Your task to perform on an android device: Go to internet settings Image 0: 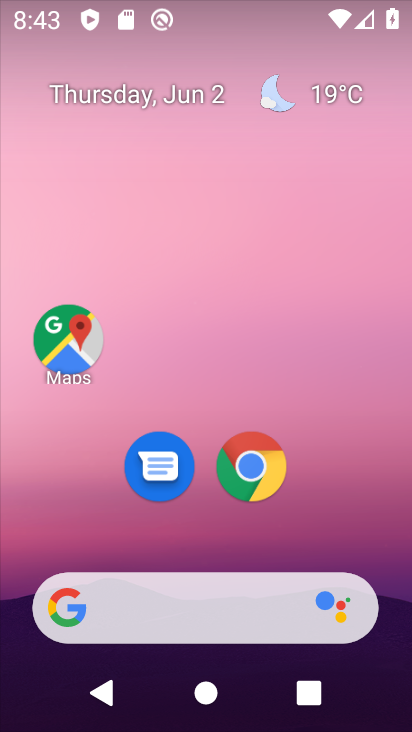
Step 0: press home button
Your task to perform on an android device: Go to internet settings Image 1: 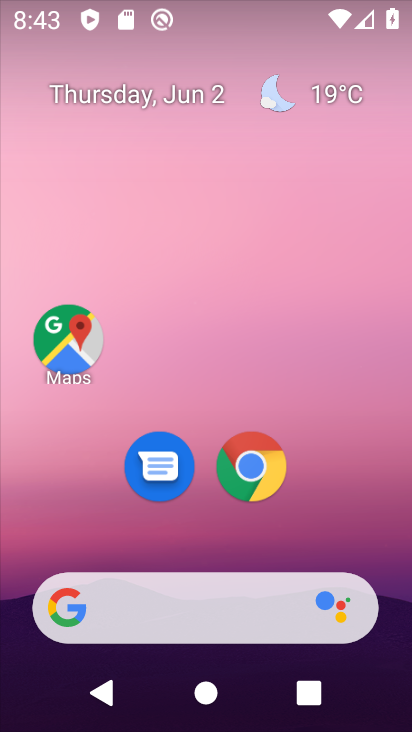
Step 1: drag from (263, 531) to (257, 106)
Your task to perform on an android device: Go to internet settings Image 2: 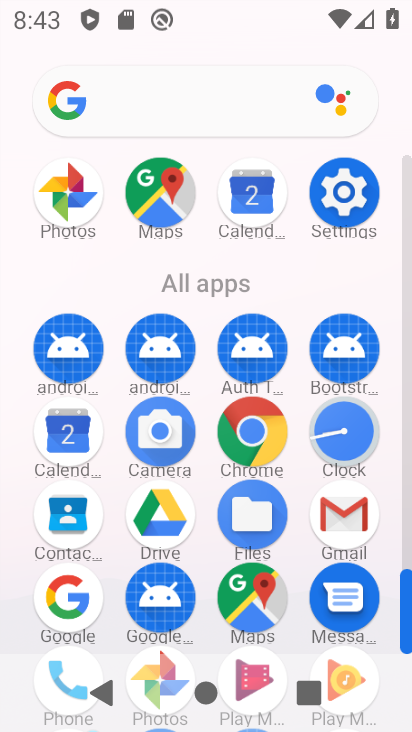
Step 2: click (338, 190)
Your task to perform on an android device: Go to internet settings Image 3: 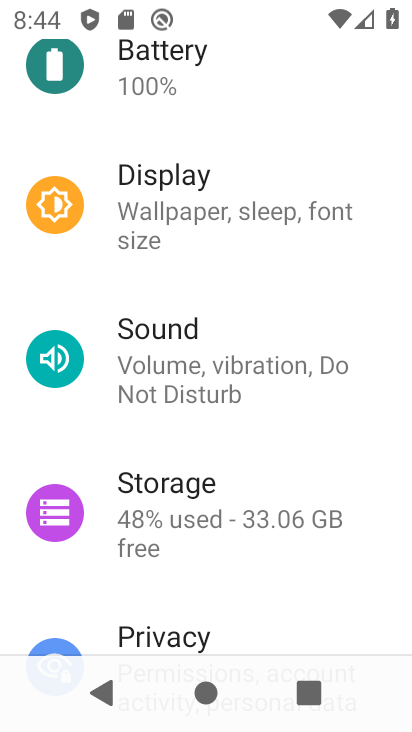
Step 3: drag from (142, 253) to (189, 659)
Your task to perform on an android device: Go to internet settings Image 4: 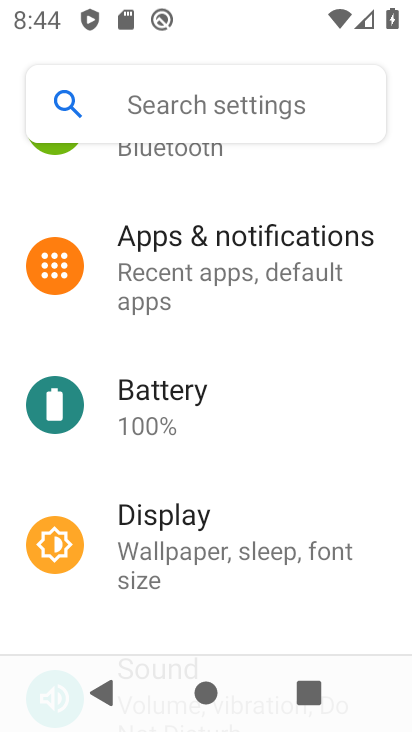
Step 4: drag from (148, 227) to (159, 567)
Your task to perform on an android device: Go to internet settings Image 5: 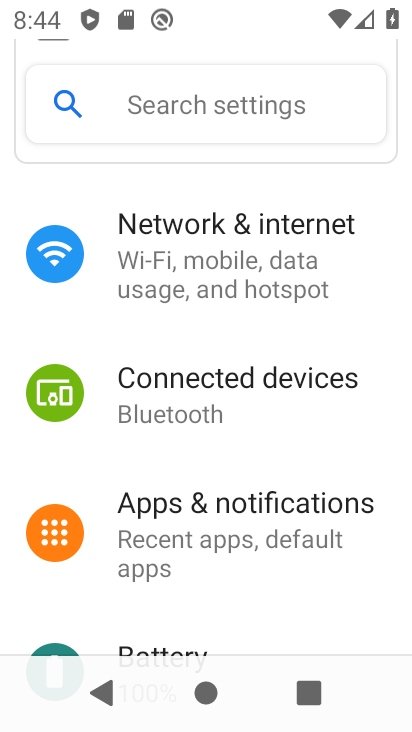
Step 5: click (180, 291)
Your task to perform on an android device: Go to internet settings Image 6: 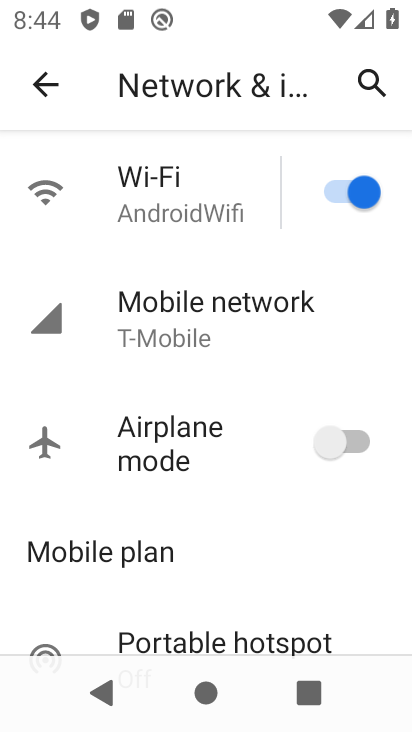
Step 6: task complete